Your task to perform on an android device: check android version Image 0: 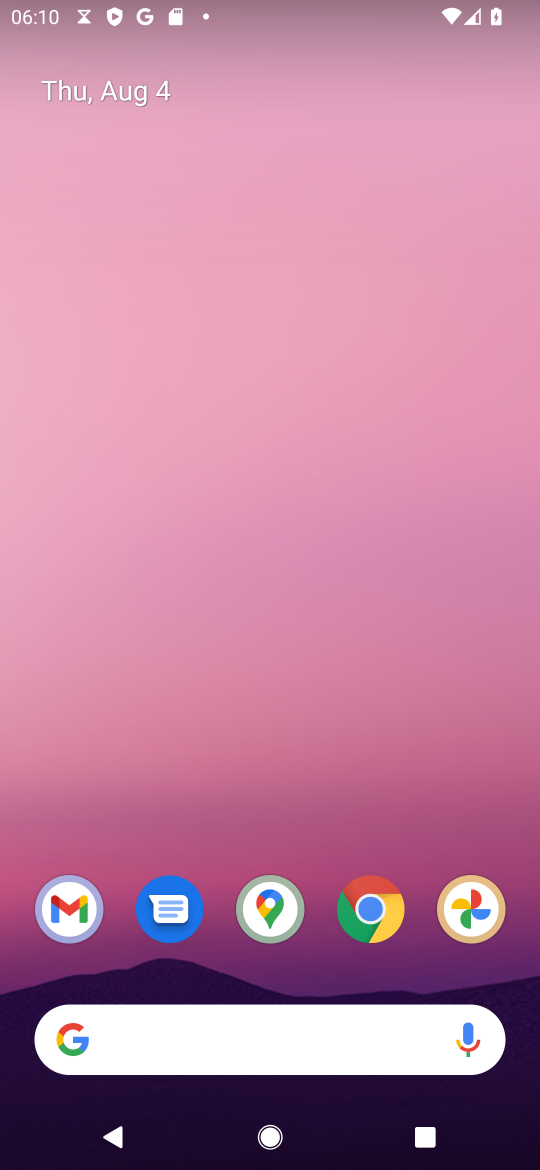
Step 0: drag from (205, 1035) to (386, 161)
Your task to perform on an android device: check android version Image 1: 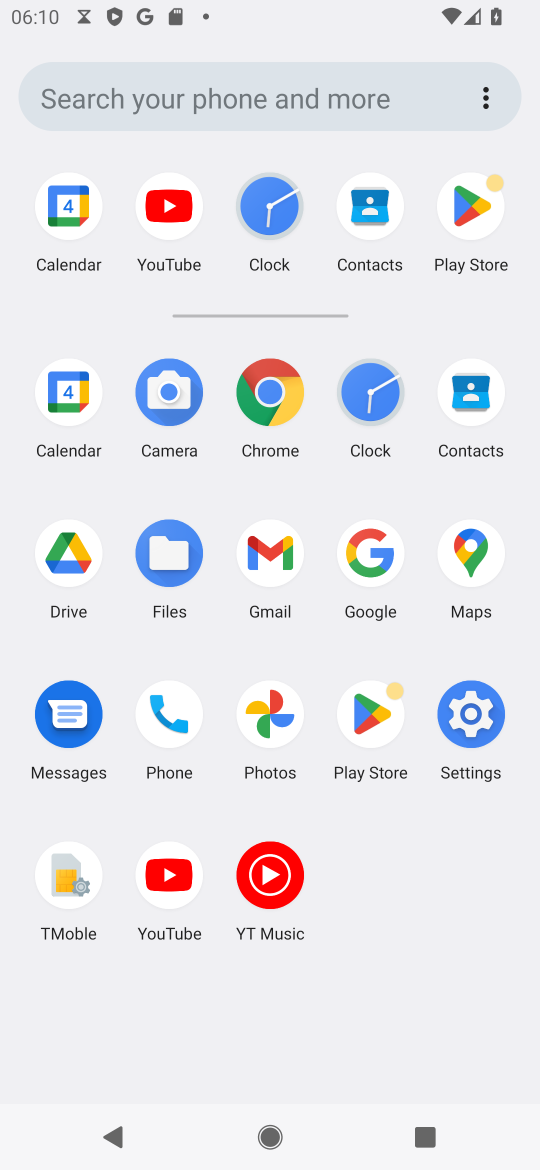
Step 1: click (479, 712)
Your task to perform on an android device: check android version Image 2: 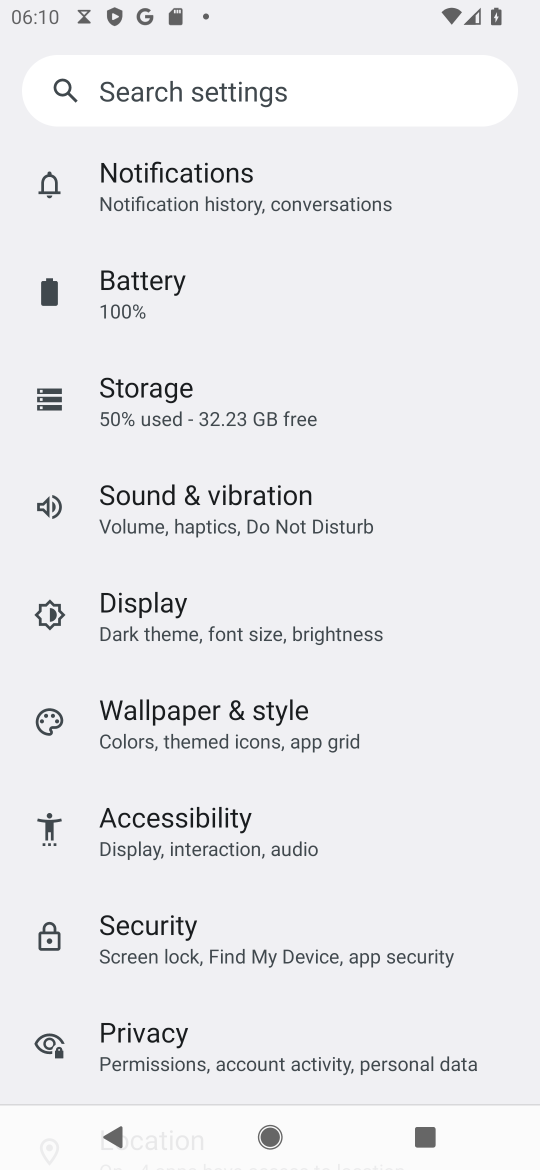
Step 2: drag from (257, 999) to (401, 103)
Your task to perform on an android device: check android version Image 3: 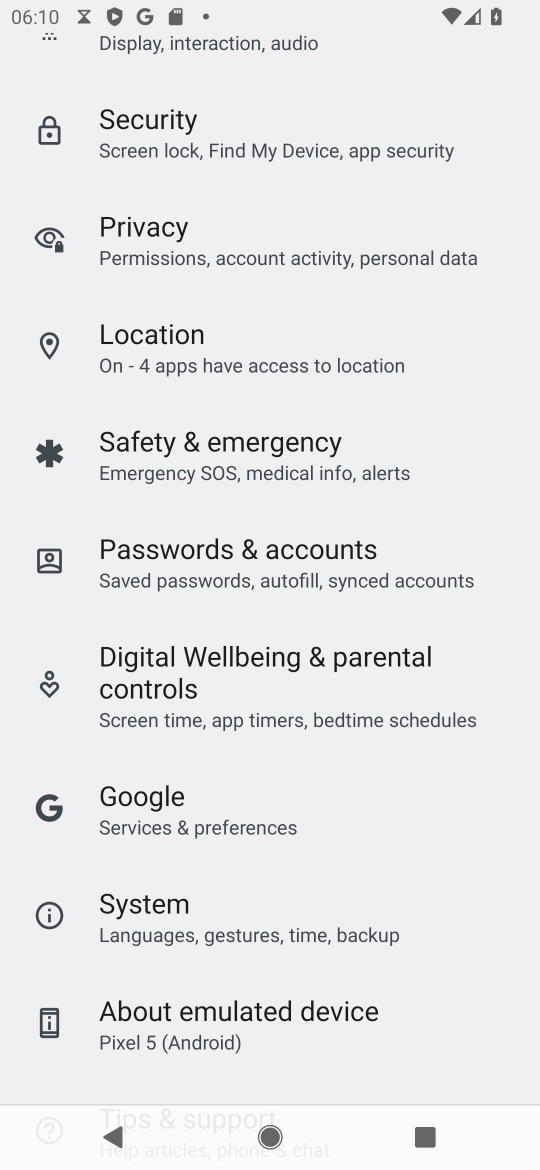
Step 3: drag from (320, 1051) to (375, 445)
Your task to perform on an android device: check android version Image 4: 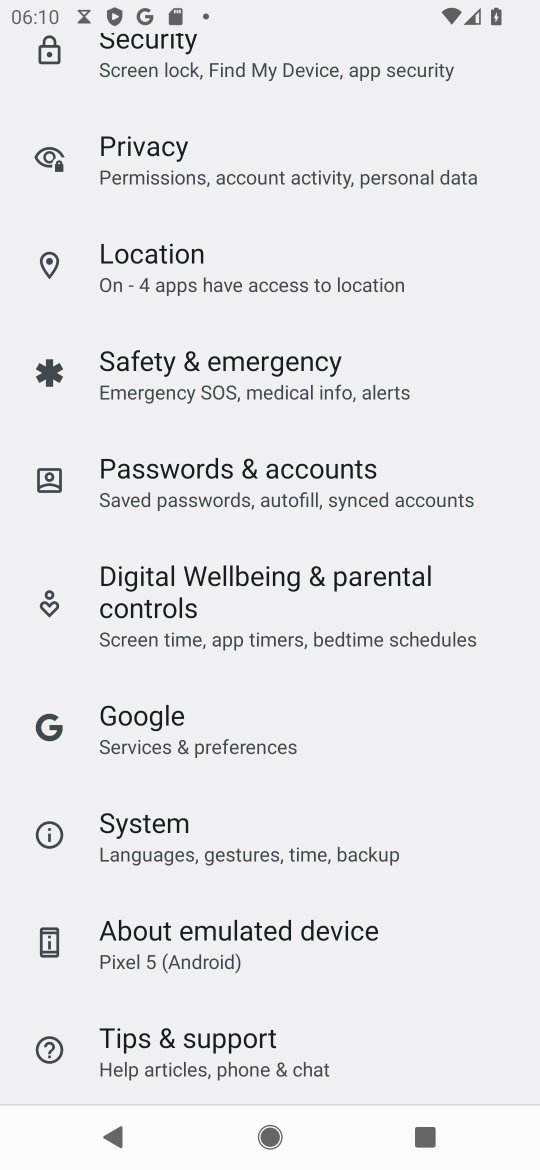
Step 4: click (225, 952)
Your task to perform on an android device: check android version Image 5: 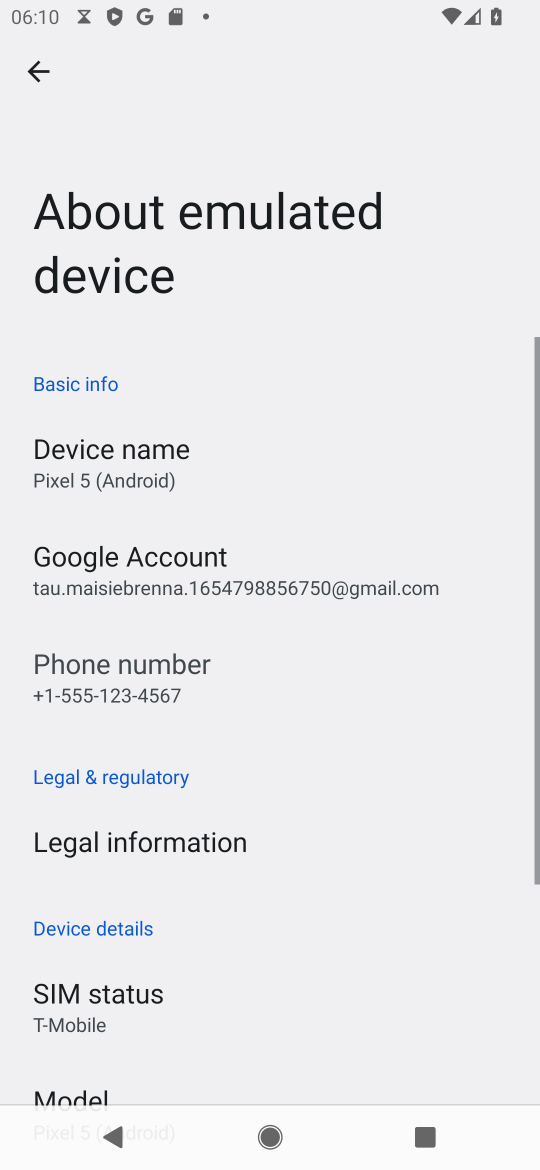
Step 5: drag from (236, 1007) to (472, 225)
Your task to perform on an android device: check android version Image 6: 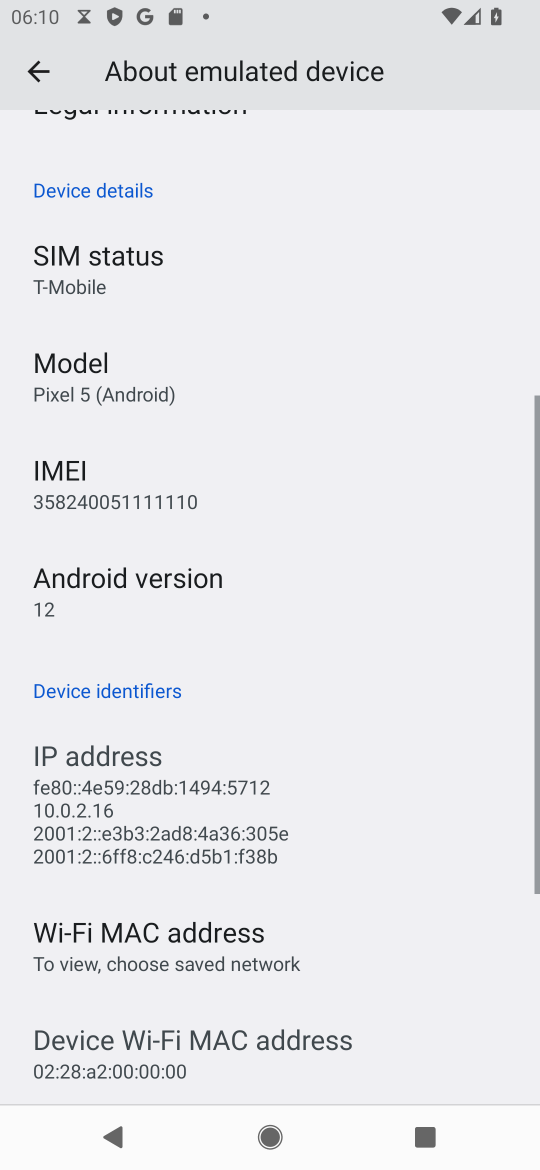
Step 6: click (145, 572)
Your task to perform on an android device: check android version Image 7: 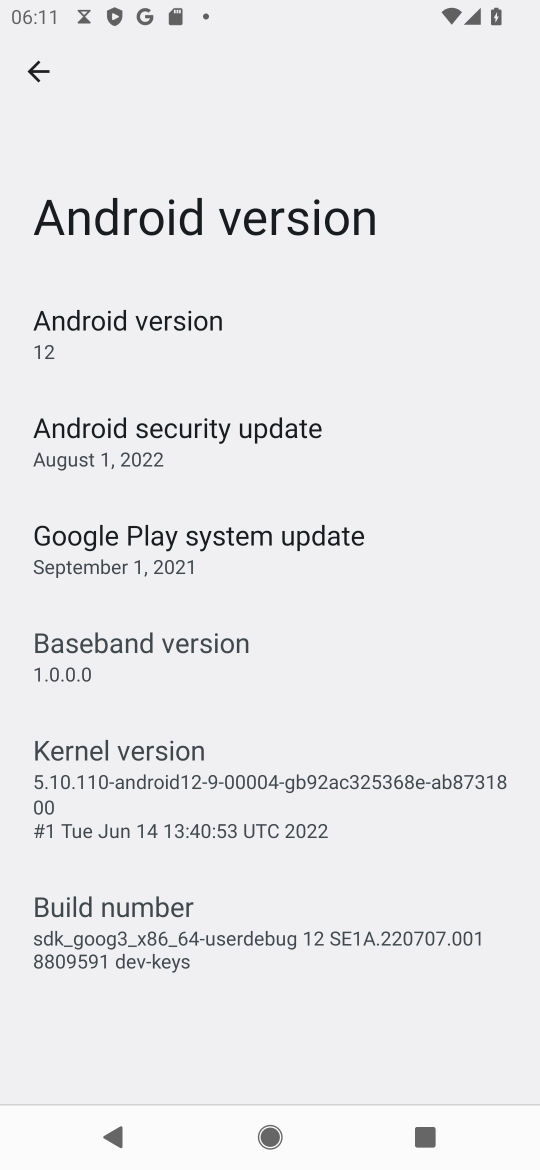
Step 7: task complete